Your task to perform on an android device: Open my contact list Image 0: 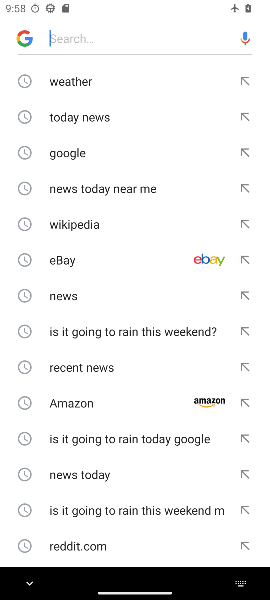
Step 0: press home button
Your task to perform on an android device: Open my contact list Image 1: 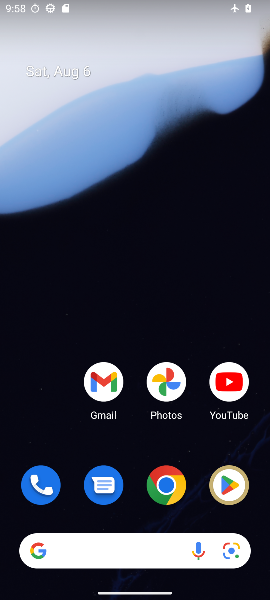
Step 1: click (150, 35)
Your task to perform on an android device: Open my contact list Image 2: 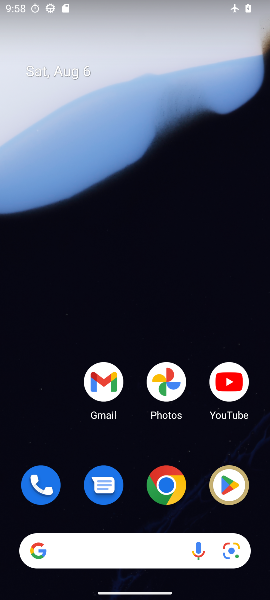
Step 2: drag from (150, 441) to (175, 5)
Your task to perform on an android device: Open my contact list Image 3: 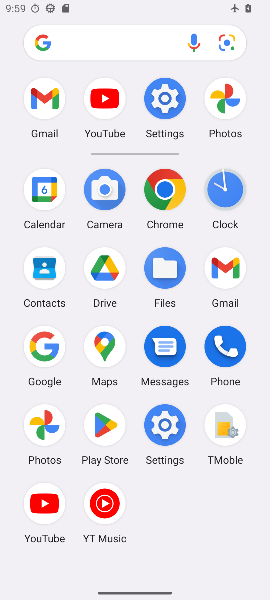
Step 3: click (47, 258)
Your task to perform on an android device: Open my contact list Image 4: 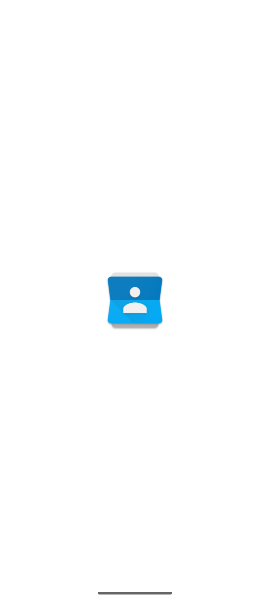
Step 4: task complete